Your task to perform on an android device: Show me productivity apps on the Play Store Image 0: 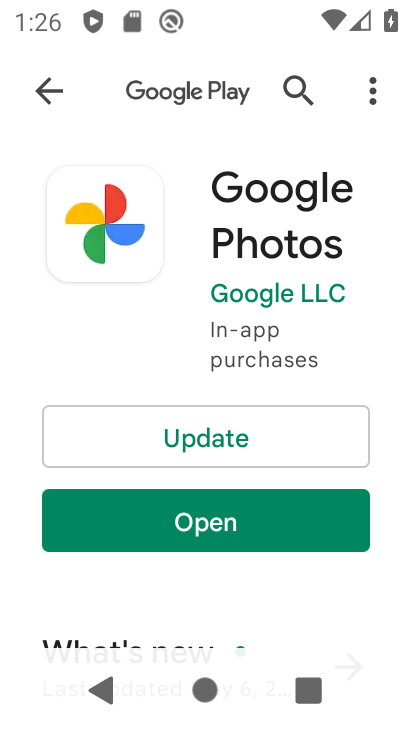
Step 0: press home button
Your task to perform on an android device: Show me productivity apps on the Play Store Image 1: 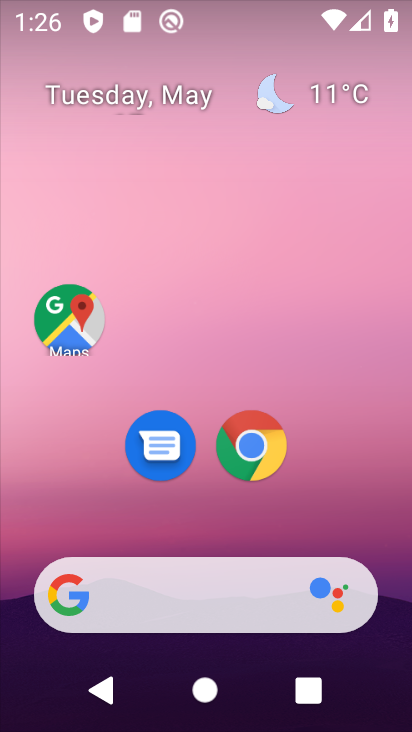
Step 1: drag from (291, 529) to (264, 0)
Your task to perform on an android device: Show me productivity apps on the Play Store Image 2: 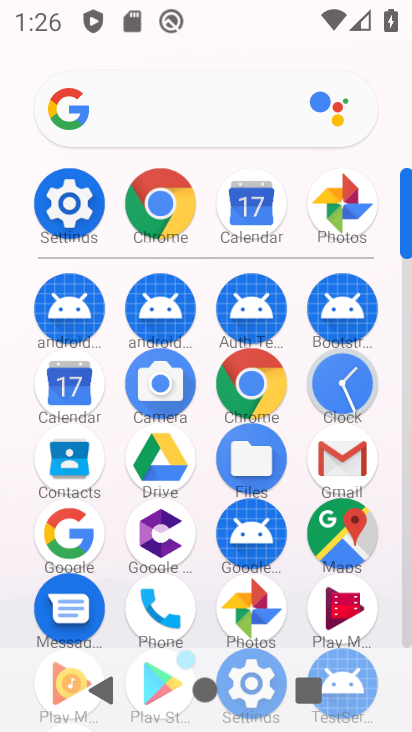
Step 2: drag from (111, 572) to (108, 432)
Your task to perform on an android device: Show me productivity apps on the Play Store Image 3: 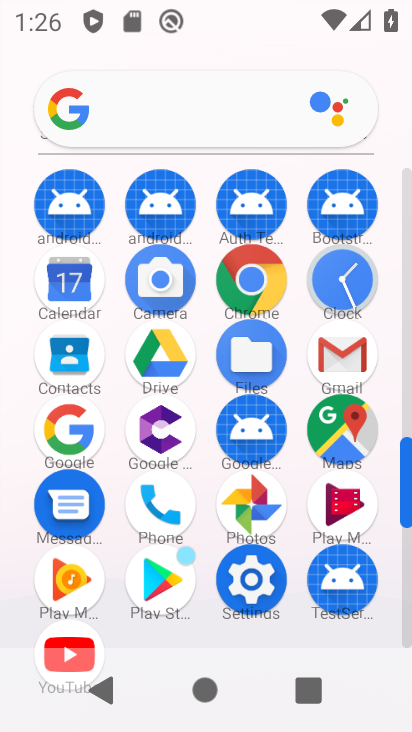
Step 3: click (155, 604)
Your task to perform on an android device: Show me productivity apps on the Play Store Image 4: 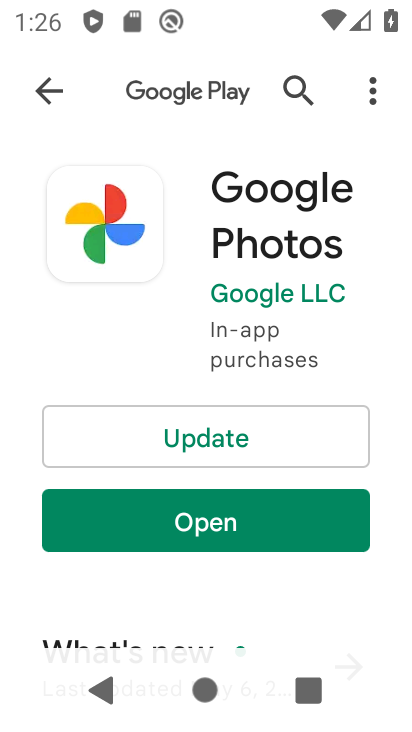
Step 4: click (45, 92)
Your task to perform on an android device: Show me productivity apps on the Play Store Image 5: 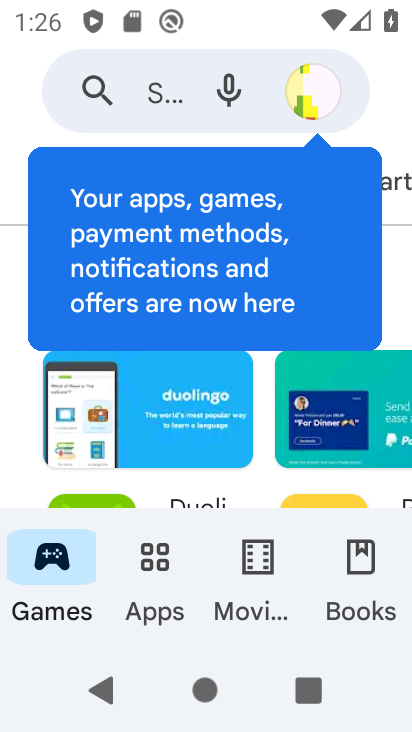
Step 5: click (164, 574)
Your task to perform on an android device: Show me productivity apps on the Play Store Image 6: 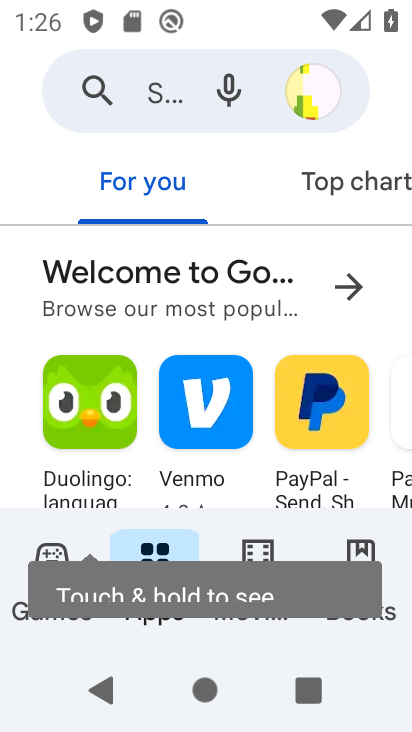
Step 6: drag from (338, 183) to (86, 190)
Your task to perform on an android device: Show me productivity apps on the Play Store Image 7: 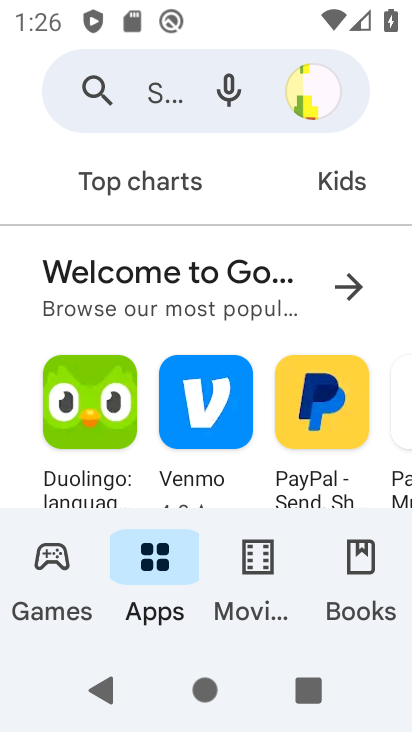
Step 7: drag from (297, 196) to (94, 193)
Your task to perform on an android device: Show me productivity apps on the Play Store Image 8: 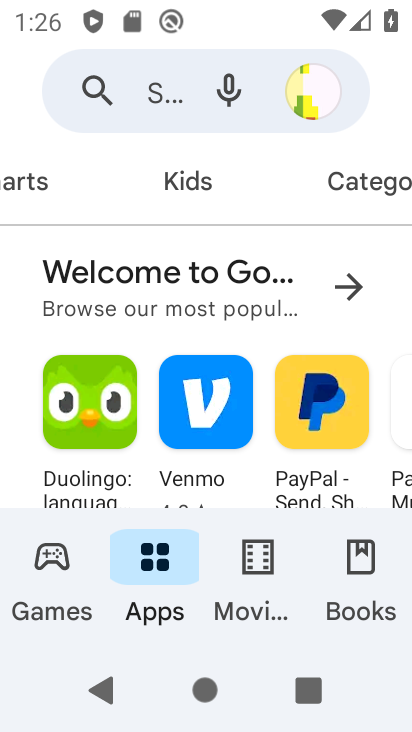
Step 8: drag from (369, 184) to (266, 181)
Your task to perform on an android device: Show me productivity apps on the Play Store Image 9: 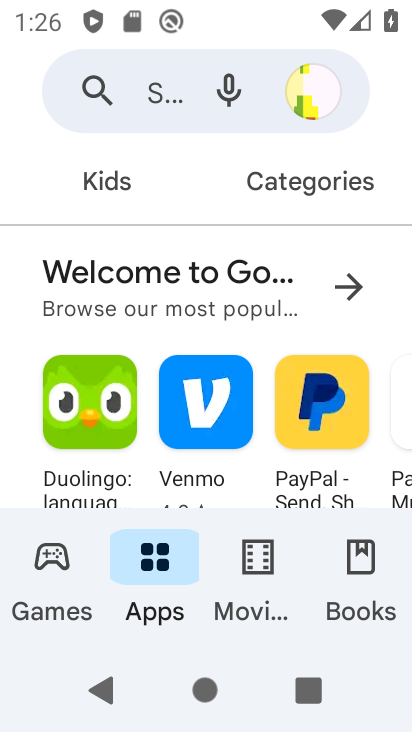
Step 9: click (288, 181)
Your task to perform on an android device: Show me productivity apps on the Play Store Image 10: 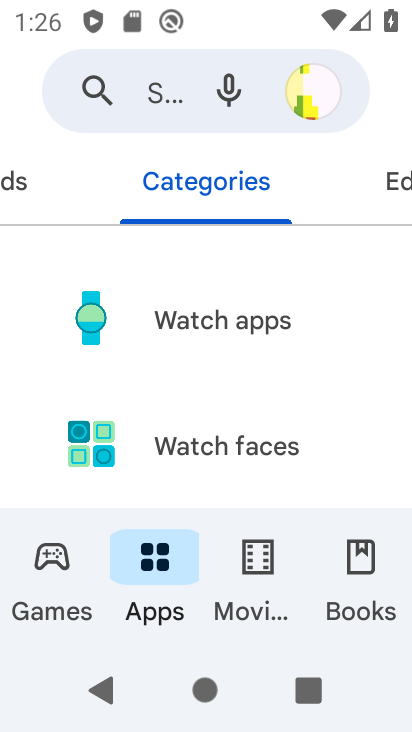
Step 10: drag from (334, 470) to (318, 242)
Your task to perform on an android device: Show me productivity apps on the Play Store Image 11: 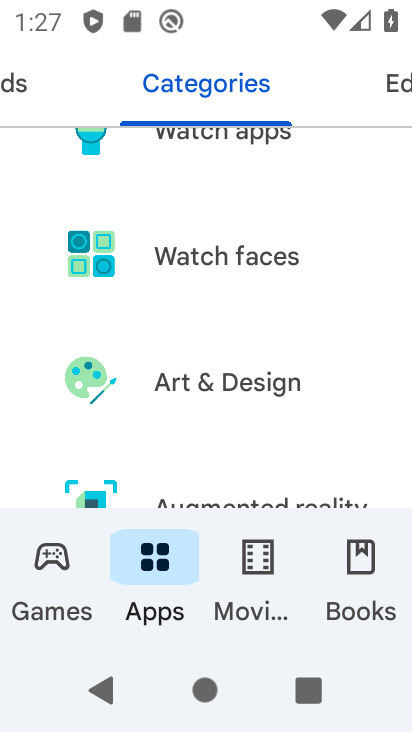
Step 11: drag from (297, 431) to (288, 86)
Your task to perform on an android device: Show me productivity apps on the Play Store Image 12: 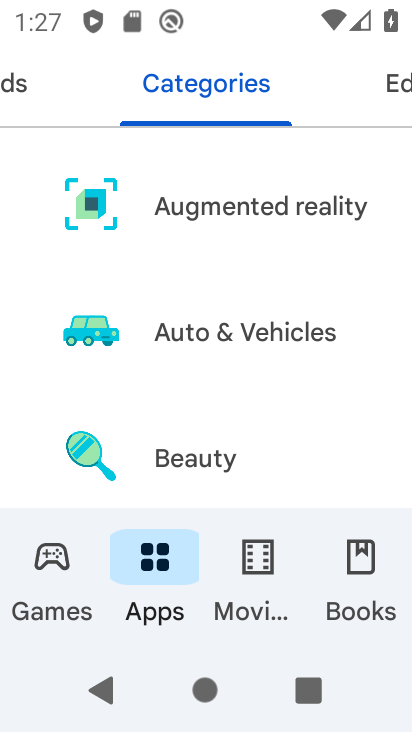
Step 12: drag from (290, 386) to (282, 0)
Your task to perform on an android device: Show me productivity apps on the Play Store Image 13: 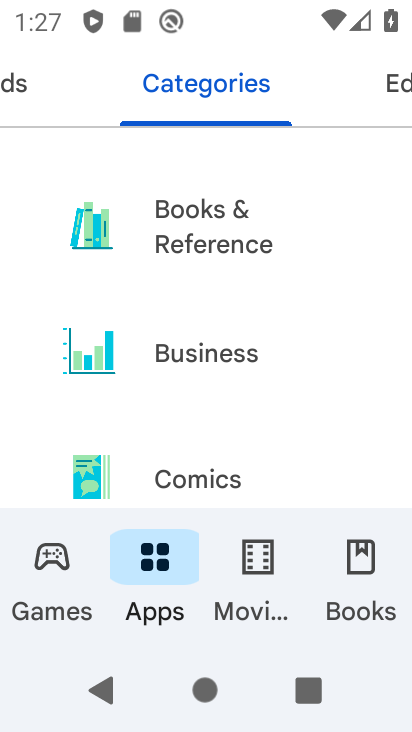
Step 13: drag from (273, 438) to (271, 96)
Your task to perform on an android device: Show me productivity apps on the Play Store Image 14: 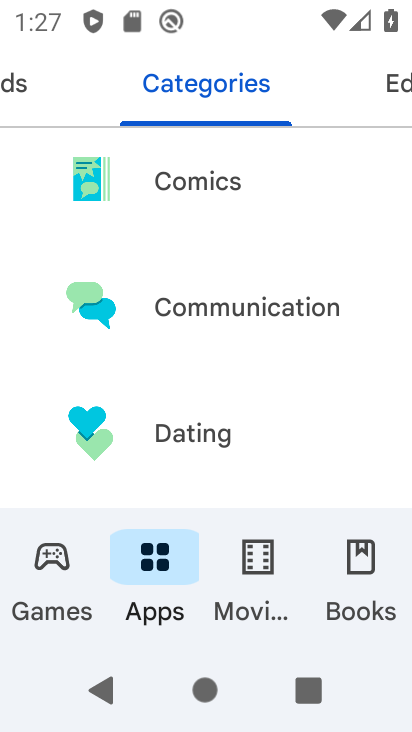
Step 14: drag from (309, 451) to (311, 121)
Your task to perform on an android device: Show me productivity apps on the Play Store Image 15: 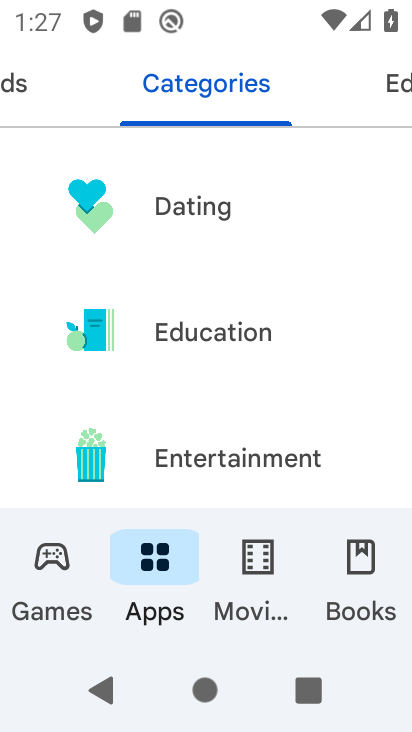
Step 15: drag from (286, 389) to (275, 42)
Your task to perform on an android device: Show me productivity apps on the Play Store Image 16: 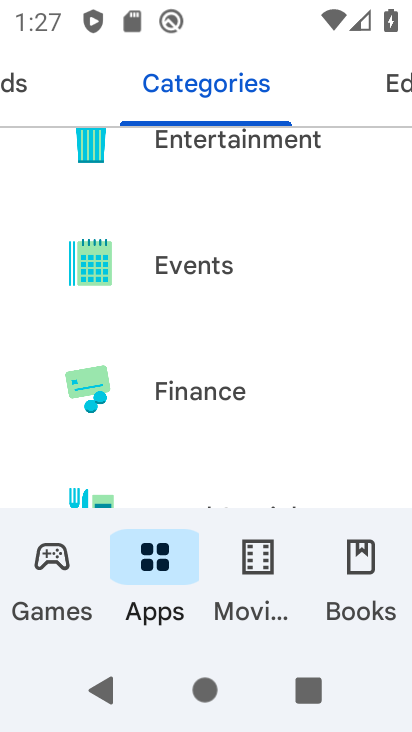
Step 16: drag from (248, 438) to (252, 3)
Your task to perform on an android device: Show me productivity apps on the Play Store Image 17: 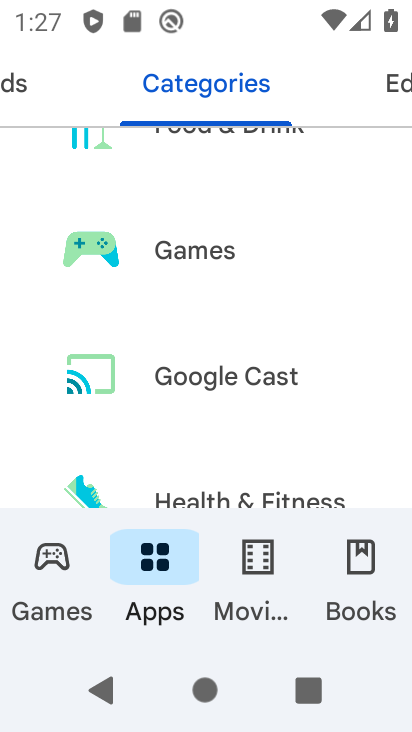
Step 17: drag from (238, 420) to (252, 69)
Your task to perform on an android device: Show me productivity apps on the Play Store Image 18: 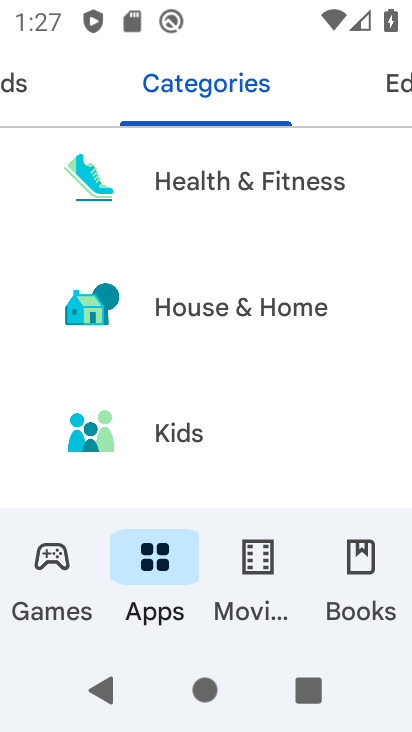
Step 18: drag from (217, 464) to (231, 101)
Your task to perform on an android device: Show me productivity apps on the Play Store Image 19: 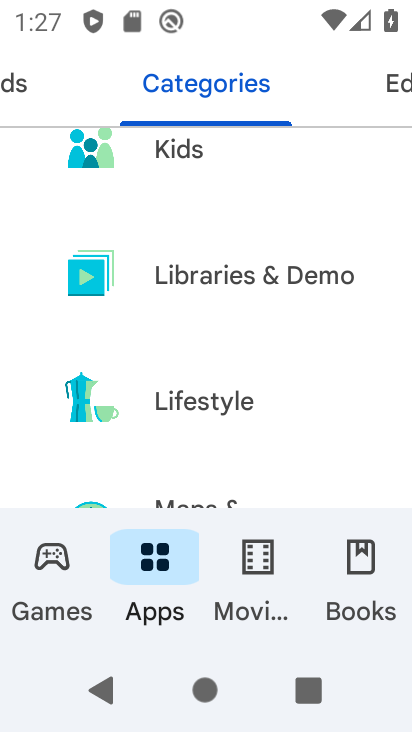
Step 19: drag from (244, 469) to (255, 35)
Your task to perform on an android device: Show me productivity apps on the Play Store Image 20: 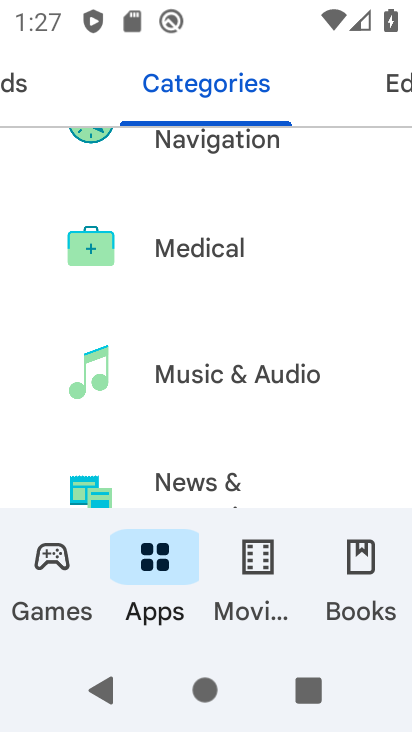
Step 20: drag from (219, 449) to (225, 69)
Your task to perform on an android device: Show me productivity apps on the Play Store Image 21: 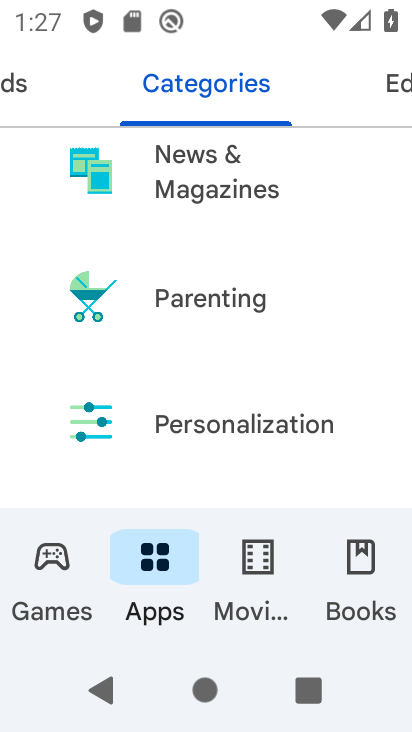
Step 21: drag from (227, 407) to (209, 112)
Your task to perform on an android device: Show me productivity apps on the Play Store Image 22: 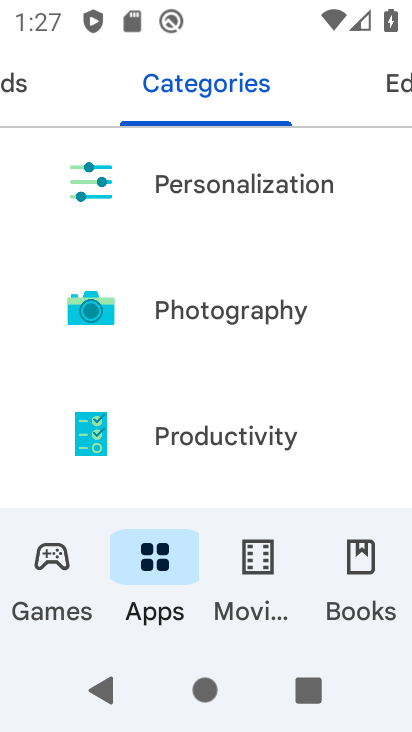
Step 22: click (201, 431)
Your task to perform on an android device: Show me productivity apps on the Play Store Image 23: 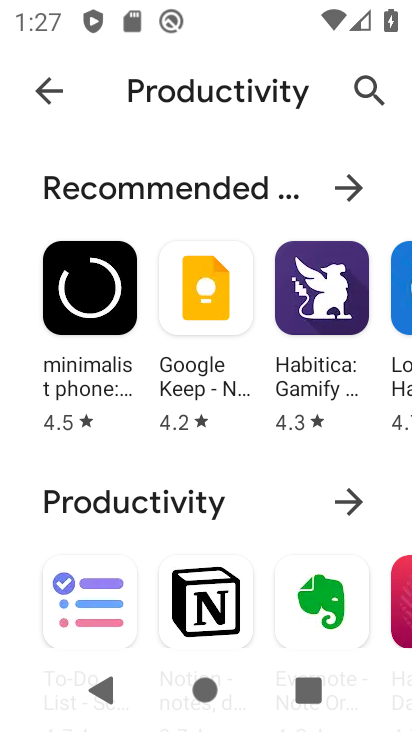
Step 23: task complete